Your task to perform on an android device: empty trash in google photos Image 0: 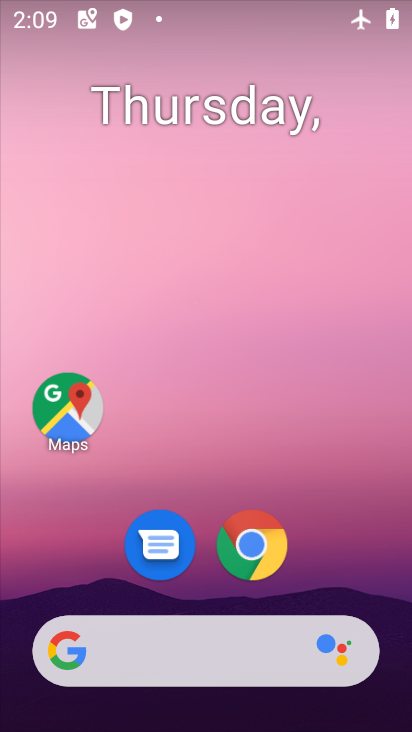
Step 0: drag from (225, 654) to (213, 295)
Your task to perform on an android device: empty trash in google photos Image 1: 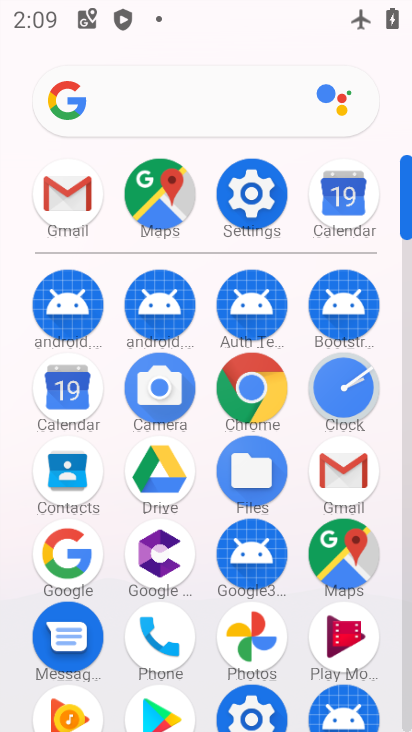
Step 1: click (267, 657)
Your task to perform on an android device: empty trash in google photos Image 2: 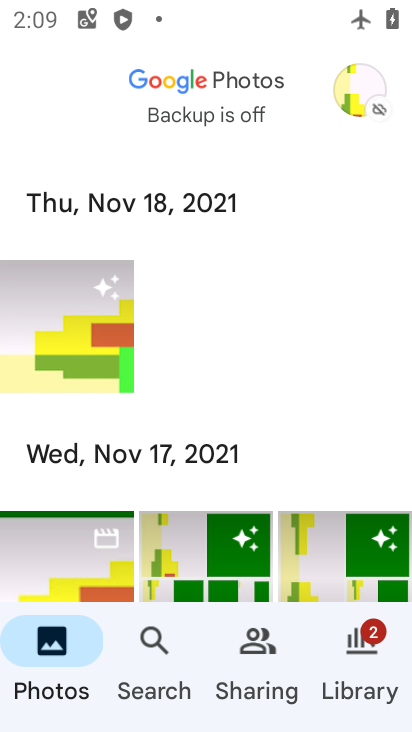
Step 2: click (366, 637)
Your task to perform on an android device: empty trash in google photos Image 3: 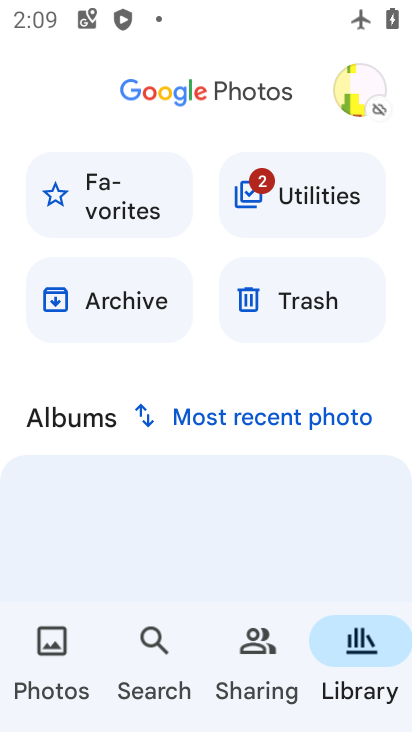
Step 3: click (298, 311)
Your task to perform on an android device: empty trash in google photos Image 4: 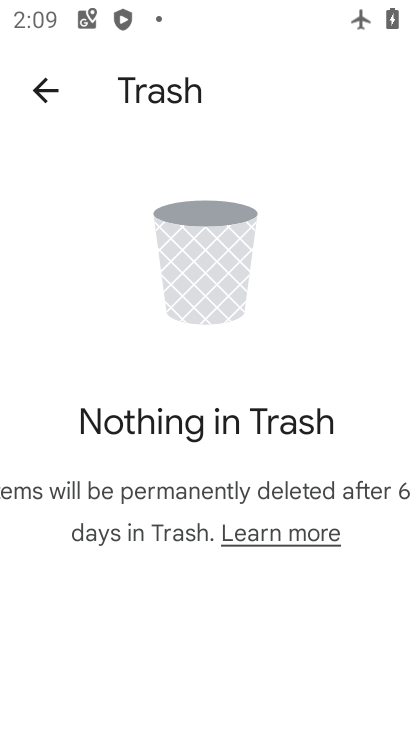
Step 4: task complete